Your task to perform on an android device: change the clock display to show seconds Image 0: 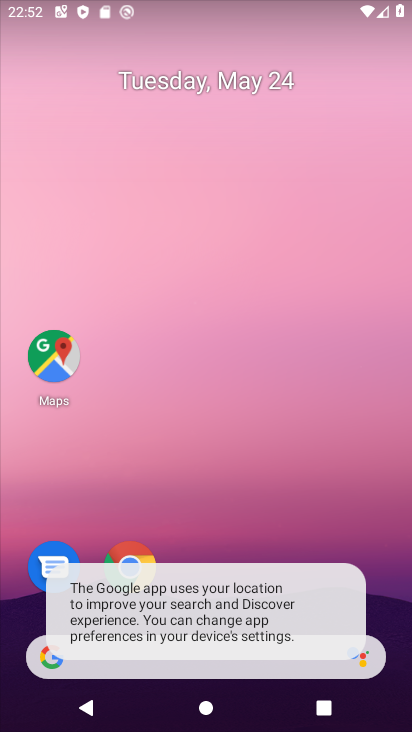
Step 0: drag from (286, 7) to (285, 287)
Your task to perform on an android device: change the clock display to show seconds Image 1: 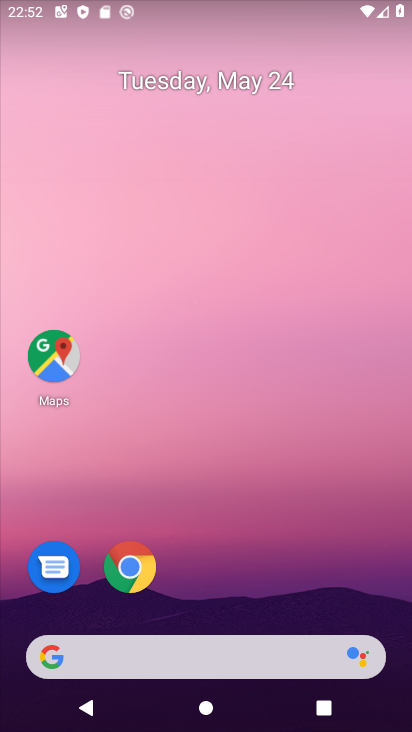
Step 1: drag from (293, 407) to (176, 2)
Your task to perform on an android device: change the clock display to show seconds Image 2: 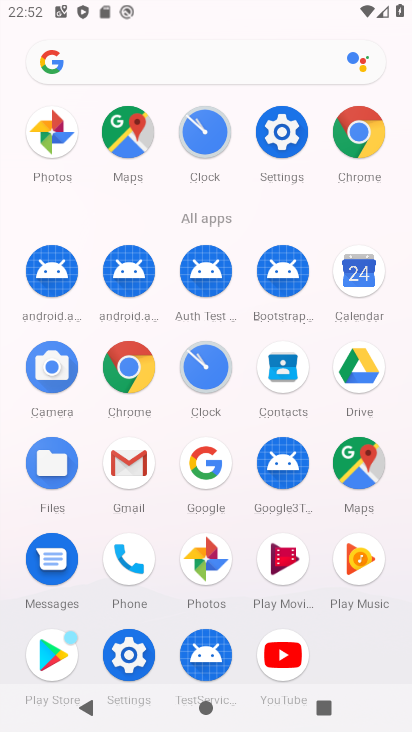
Step 2: click (206, 368)
Your task to perform on an android device: change the clock display to show seconds Image 3: 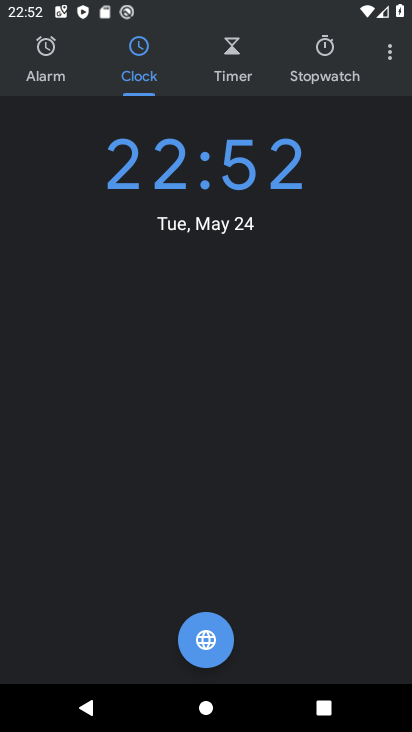
Step 3: click (395, 39)
Your task to perform on an android device: change the clock display to show seconds Image 4: 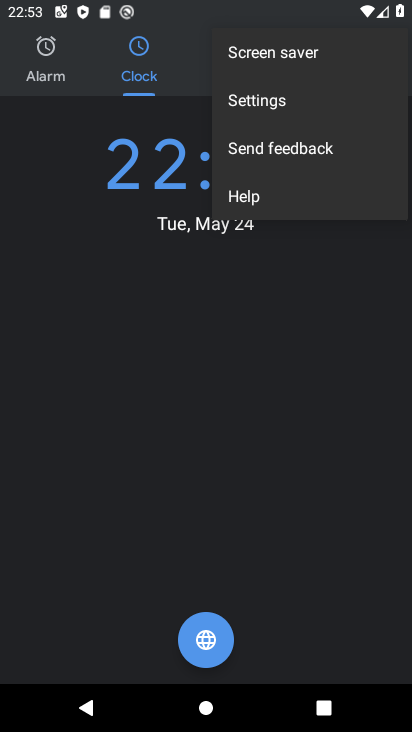
Step 4: click (276, 91)
Your task to perform on an android device: change the clock display to show seconds Image 5: 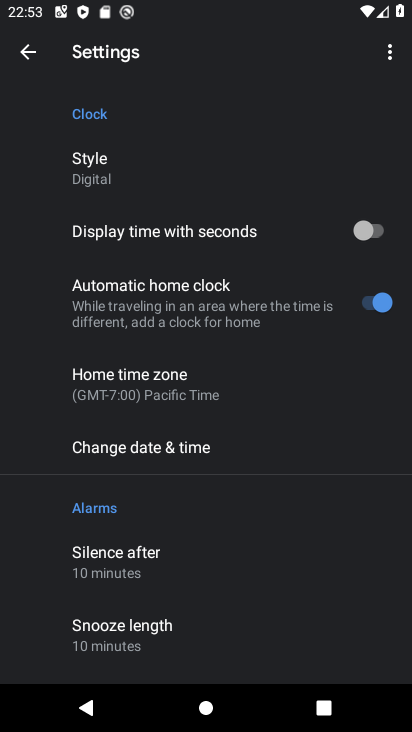
Step 5: click (373, 221)
Your task to perform on an android device: change the clock display to show seconds Image 6: 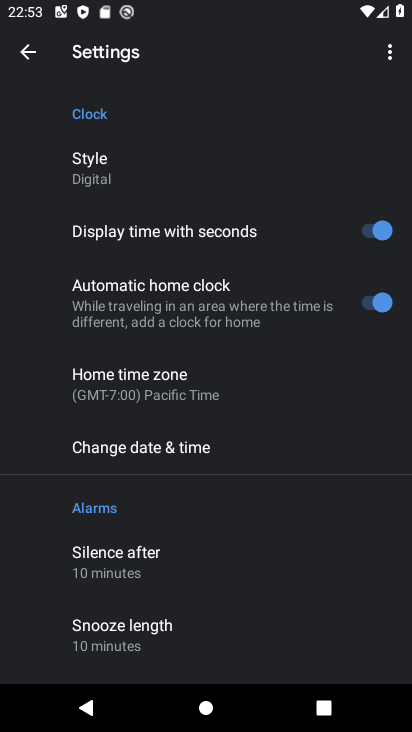
Step 6: task complete